Your task to perform on an android device: Open calendar and show me the second week of next month Image 0: 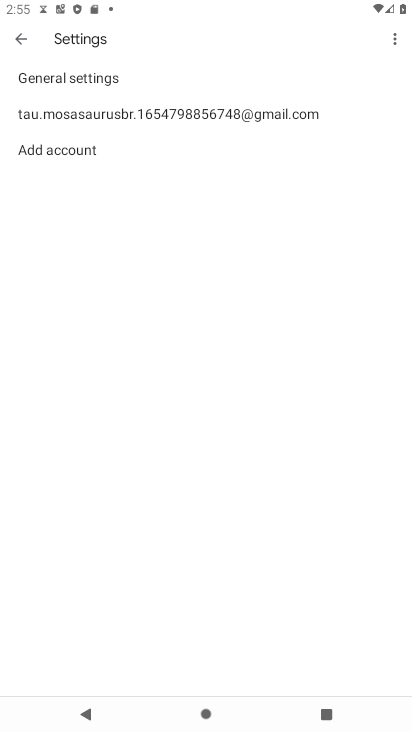
Step 0: press home button
Your task to perform on an android device: Open calendar and show me the second week of next month Image 1: 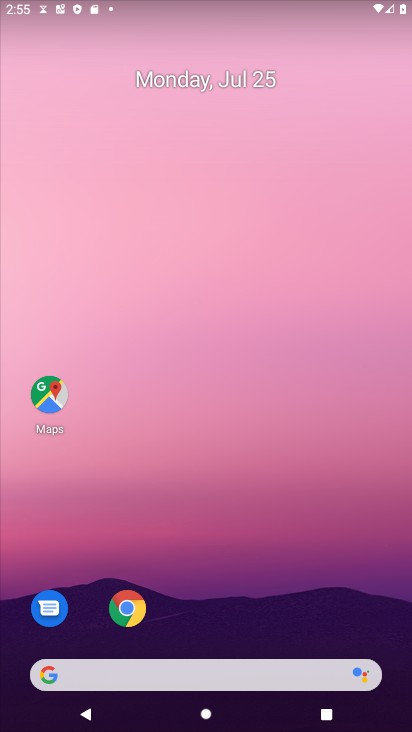
Step 1: drag from (259, 609) to (209, 1)
Your task to perform on an android device: Open calendar and show me the second week of next month Image 2: 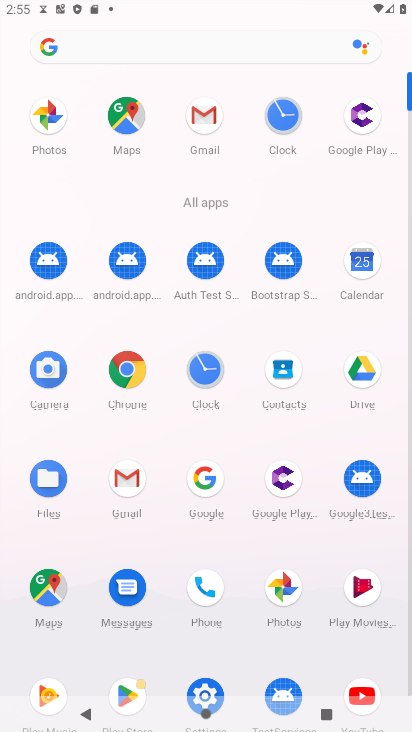
Step 2: click (385, 274)
Your task to perform on an android device: Open calendar and show me the second week of next month Image 3: 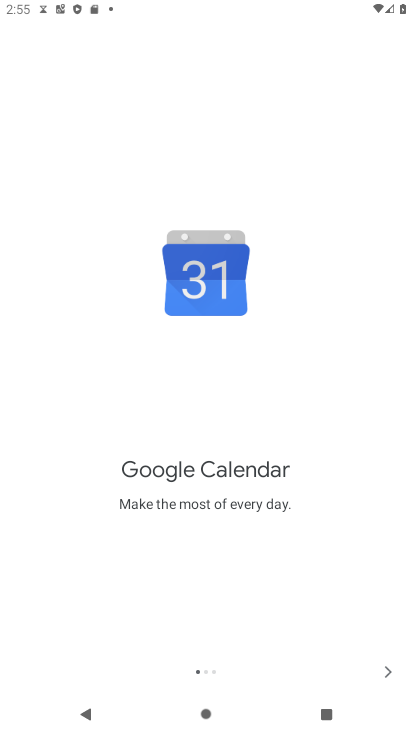
Step 3: click (381, 672)
Your task to perform on an android device: Open calendar and show me the second week of next month Image 4: 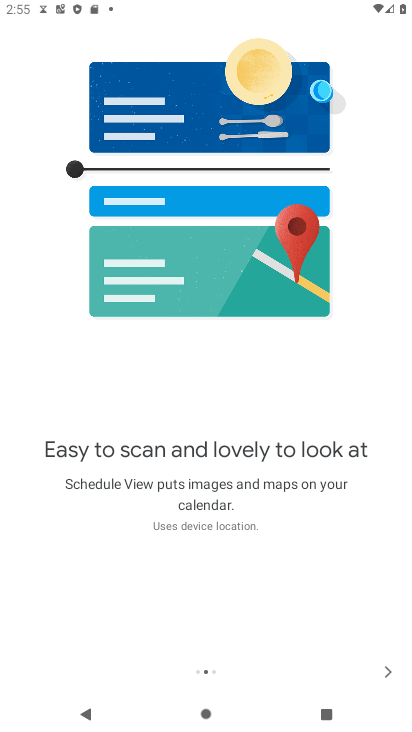
Step 4: click (384, 664)
Your task to perform on an android device: Open calendar and show me the second week of next month Image 5: 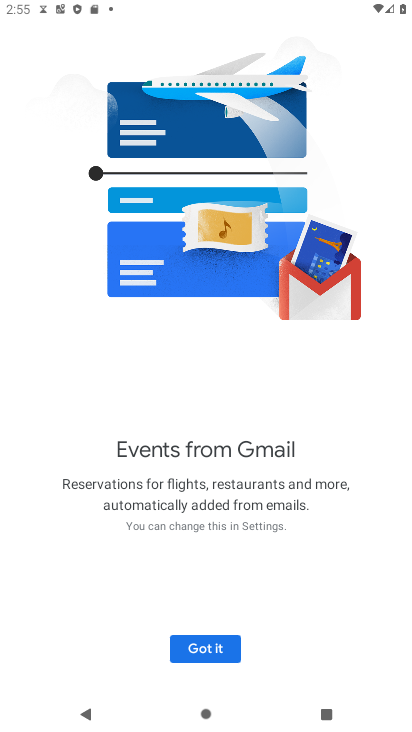
Step 5: click (213, 655)
Your task to perform on an android device: Open calendar and show me the second week of next month Image 6: 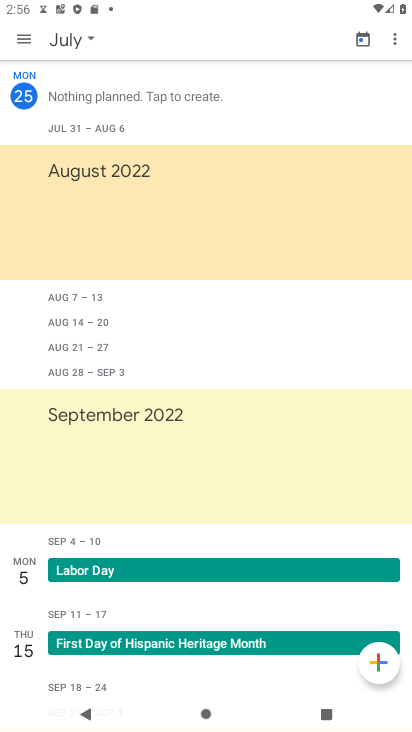
Step 6: click (24, 36)
Your task to perform on an android device: Open calendar and show me the second week of next month Image 7: 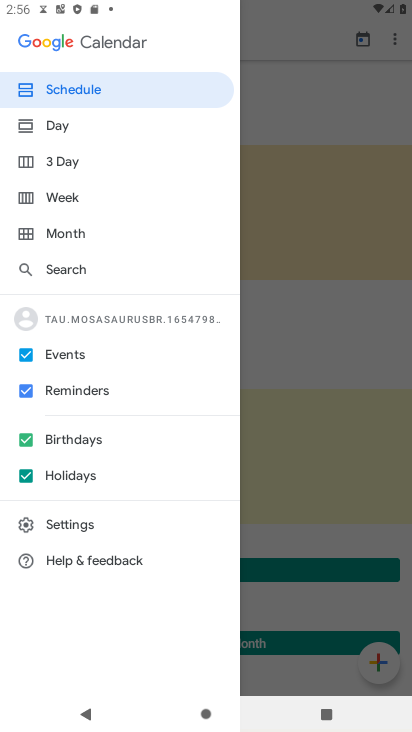
Step 7: click (64, 201)
Your task to perform on an android device: Open calendar and show me the second week of next month Image 8: 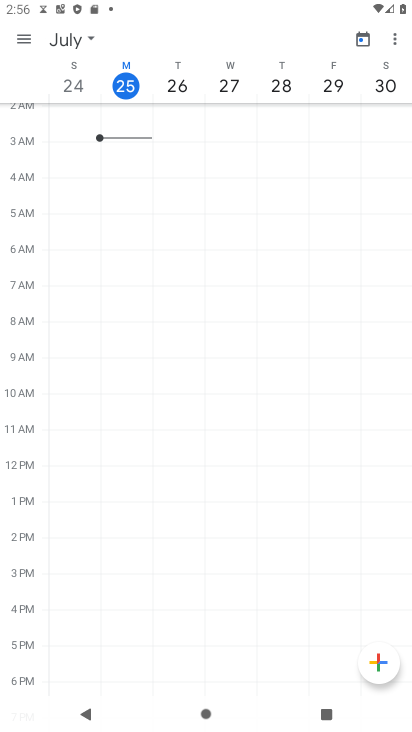
Step 8: task complete